Your task to perform on an android device: View the shopping cart on walmart.com. Image 0: 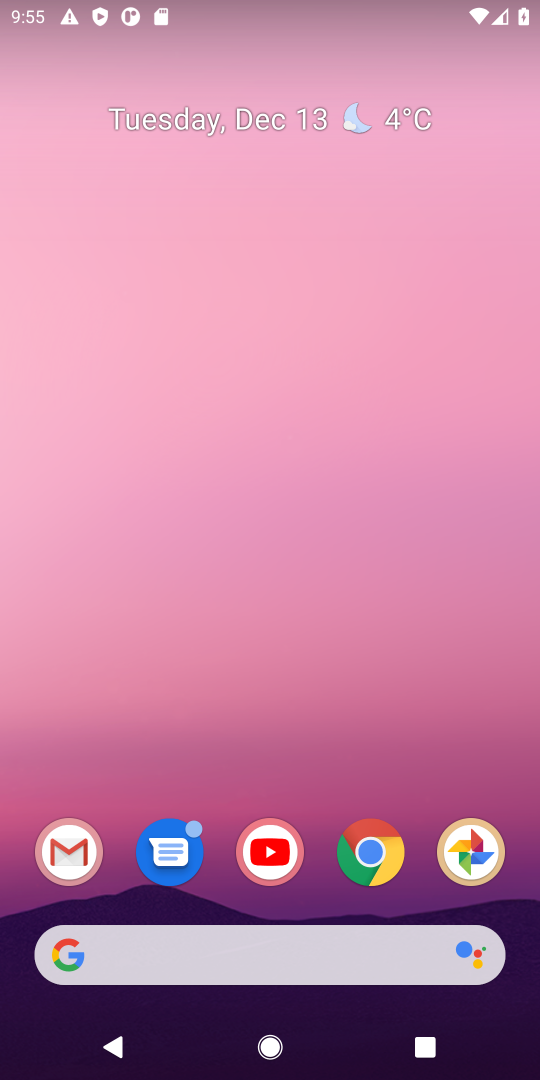
Step 0: click (127, 946)
Your task to perform on an android device: View the shopping cart on walmart.com. Image 1: 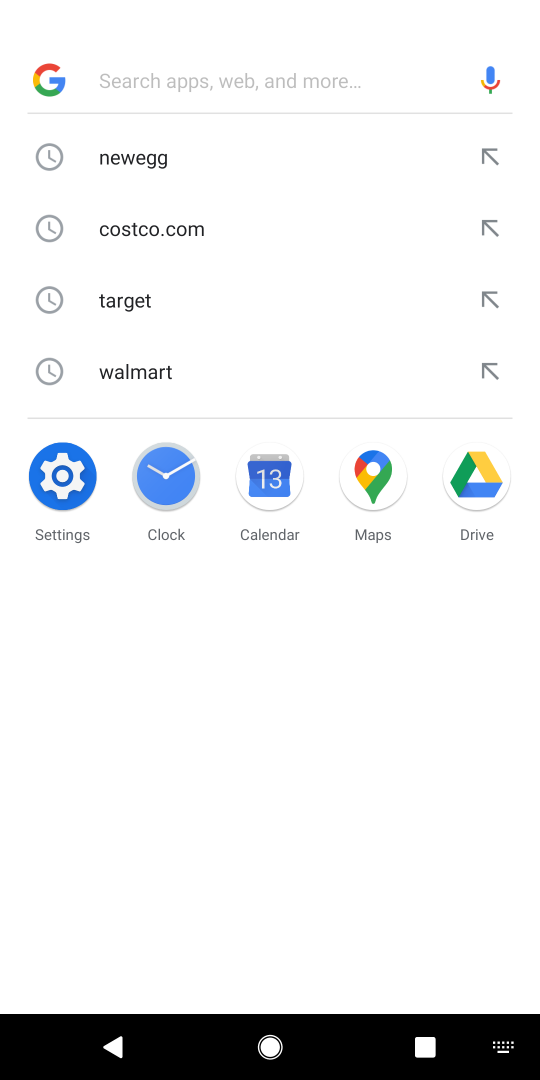
Step 1: type "walmart.com"
Your task to perform on an android device: View the shopping cart on walmart.com. Image 2: 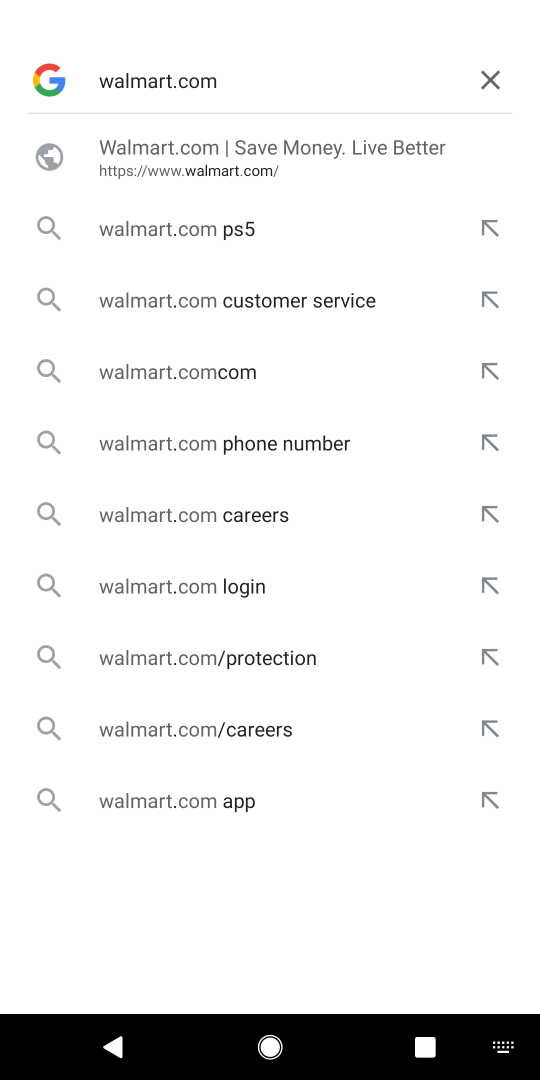
Step 2: press enter
Your task to perform on an android device: View the shopping cart on walmart.com. Image 3: 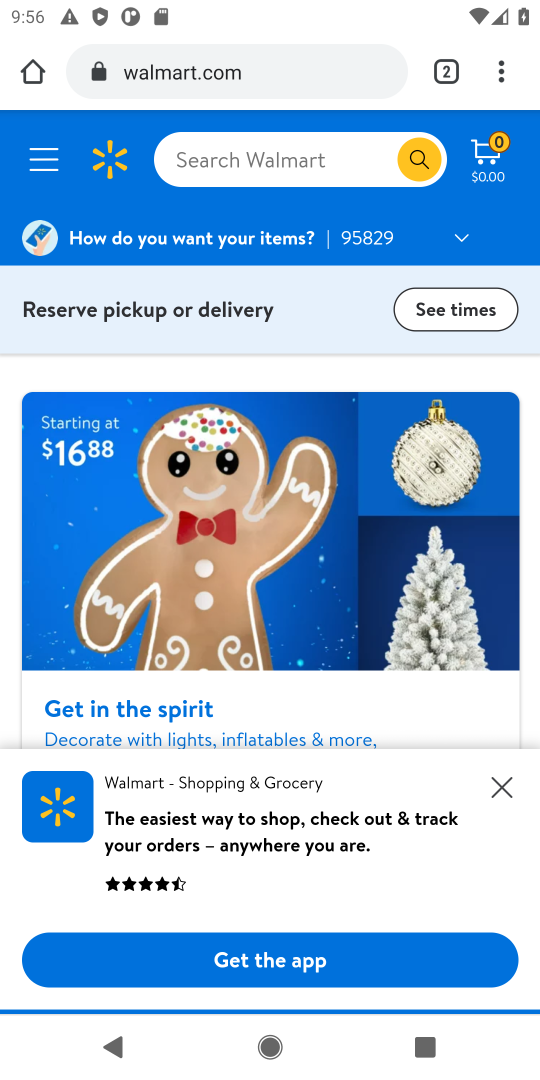
Step 3: click (484, 150)
Your task to perform on an android device: View the shopping cart on walmart.com. Image 4: 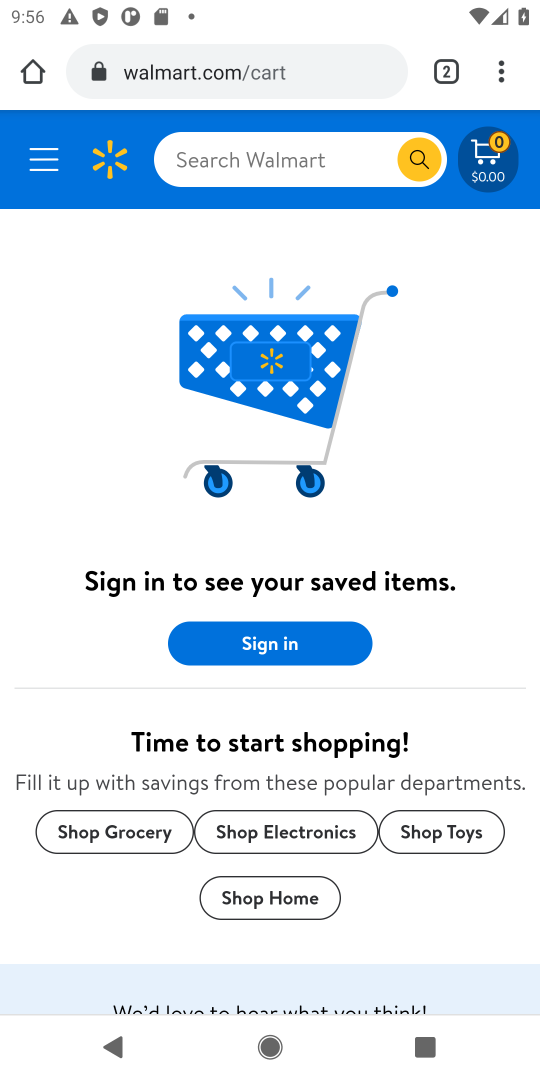
Step 4: task complete